Your task to perform on an android device: toggle notifications settings in the gmail app Image 0: 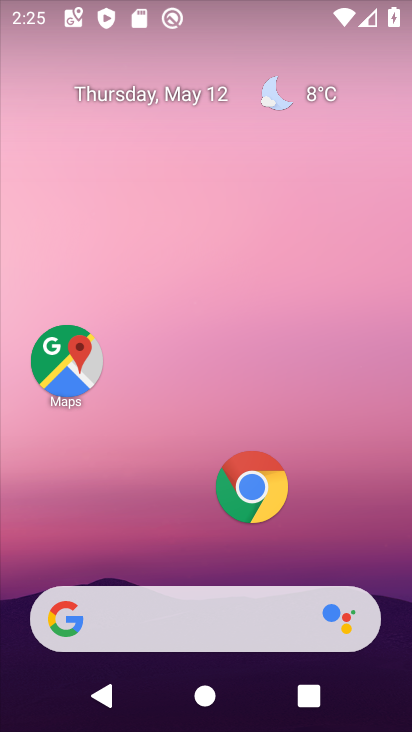
Step 0: drag from (184, 510) to (244, 11)
Your task to perform on an android device: toggle notifications settings in the gmail app Image 1: 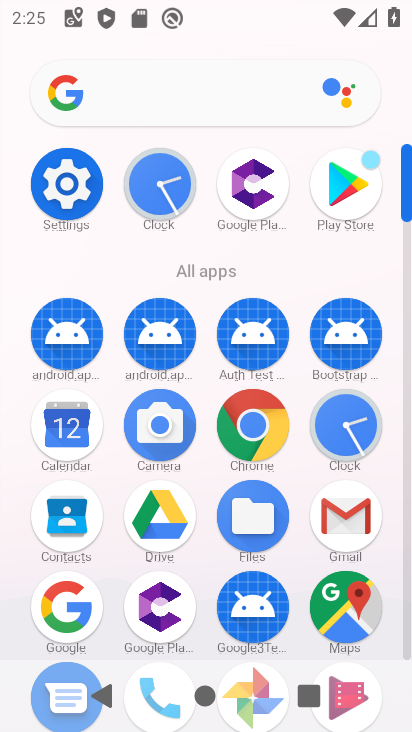
Step 1: click (342, 514)
Your task to perform on an android device: toggle notifications settings in the gmail app Image 2: 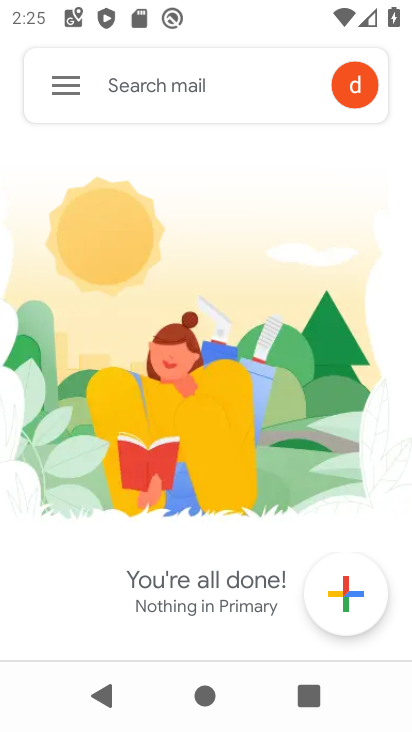
Step 2: click (65, 77)
Your task to perform on an android device: toggle notifications settings in the gmail app Image 3: 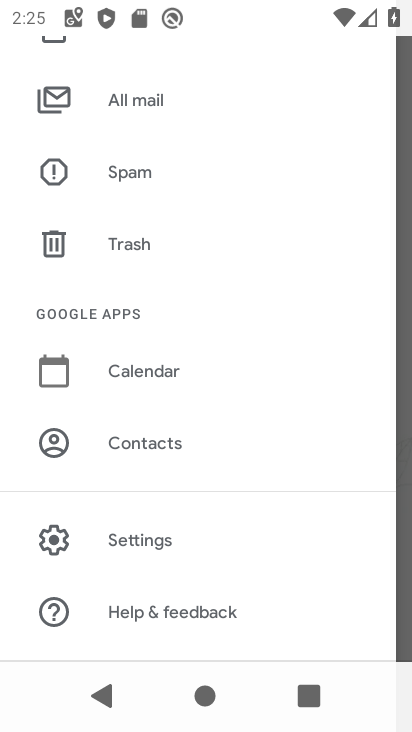
Step 3: click (154, 537)
Your task to perform on an android device: toggle notifications settings in the gmail app Image 4: 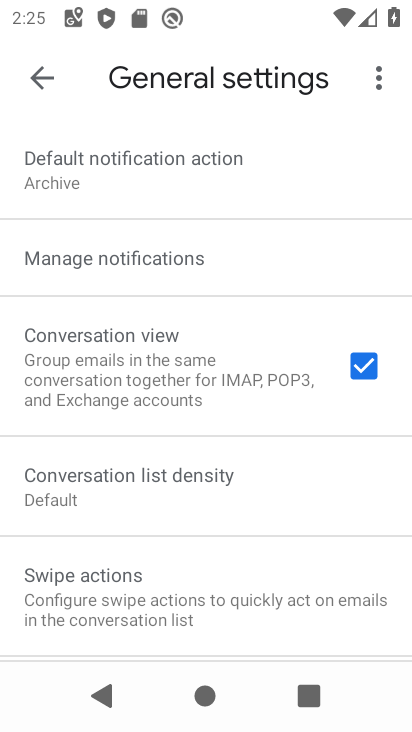
Step 4: click (103, 258)
Your task to perform on an android device: toggle notifications settings in the gmail app Image 5: 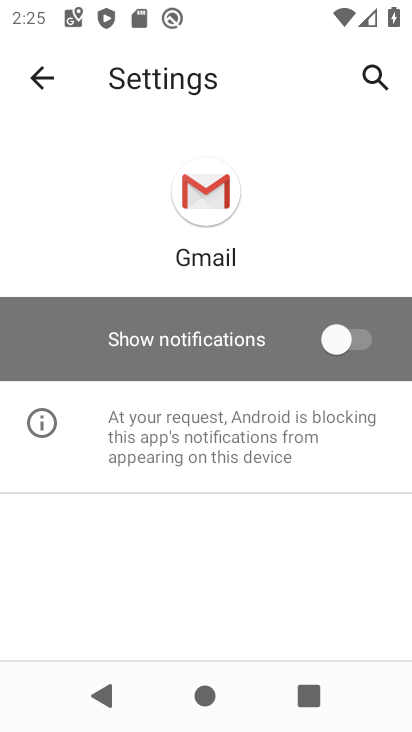
Step 5: click (351, 347)
Your task to perform on an android device: toggle notifications settings in the gmail app Image 6: 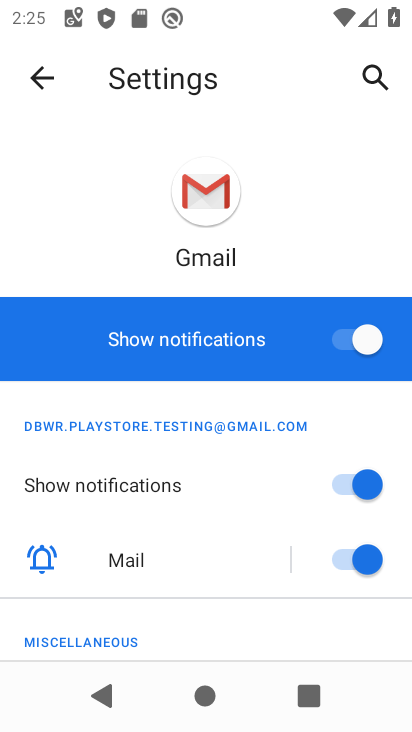
Step 6: task complete